Your task to perform on an android device: Open wifi settings Image 0: 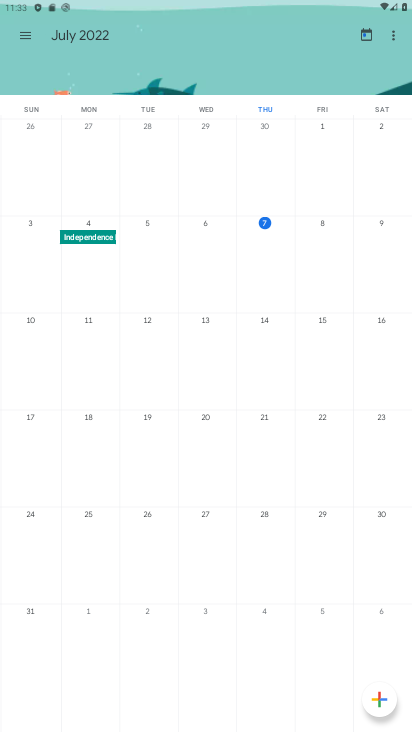
Step 0: press home button
Your task to perform on an android device: Open wifi settings Image 1: 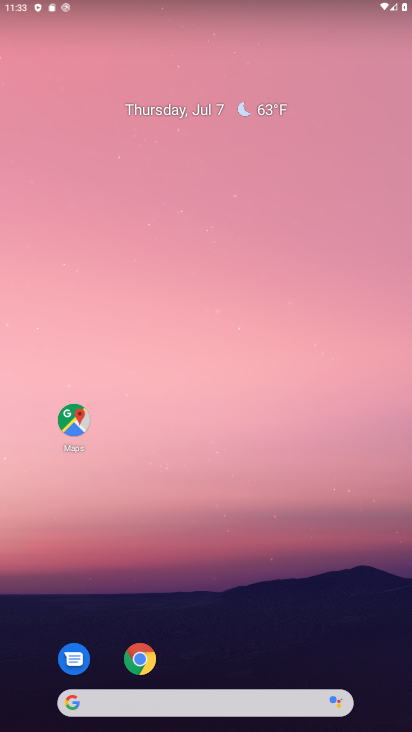
Step 1: drag from (197, 596) to (373, 10)
Your task to perform on an android device: Open wifi settings Image 2: 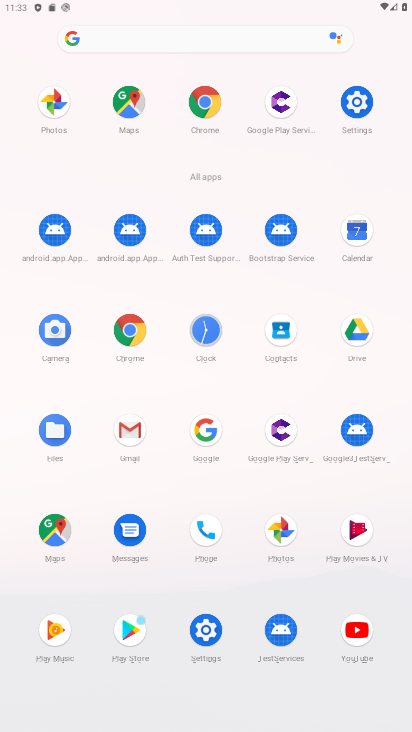
Step 2: click (202, 625)
Your task to perform on an android device: Open wifi settings Image 3: 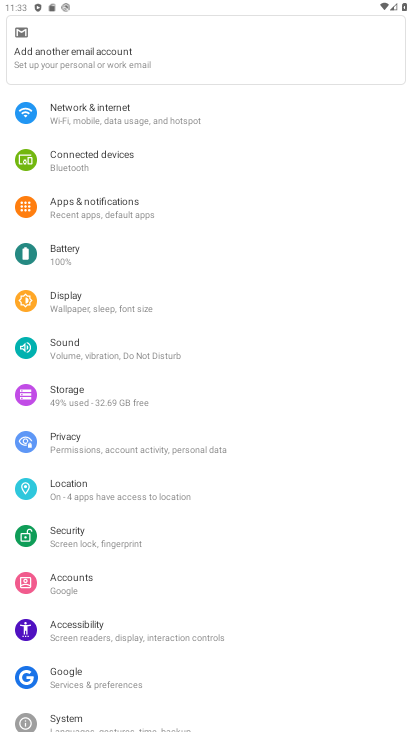
Step 3: click (120, 117)
Your task to perform on an android device: Open wifi settings Image 4: 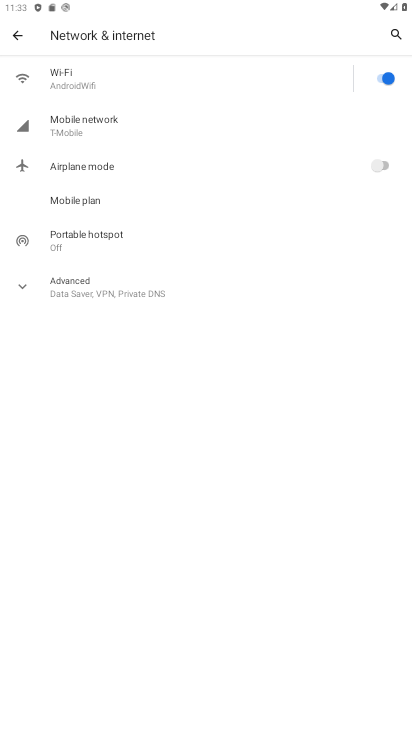
Step 4: click (94, 83)
Your task to perform on an android device: Open wifi settings Image 5: 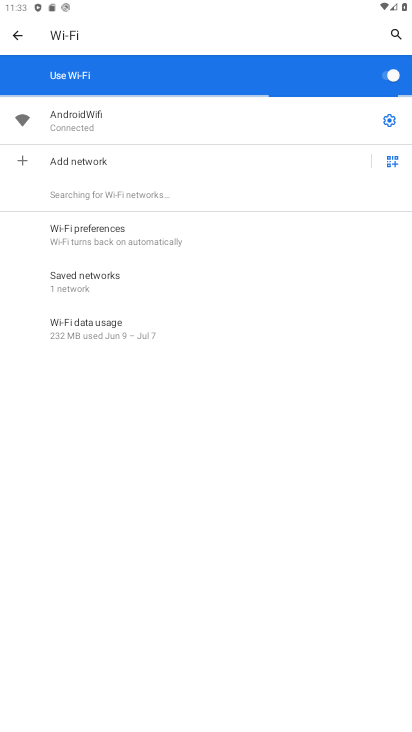
Step 5: task complete